Your task to perform on an android device: find photos in the google photos app Image 0: 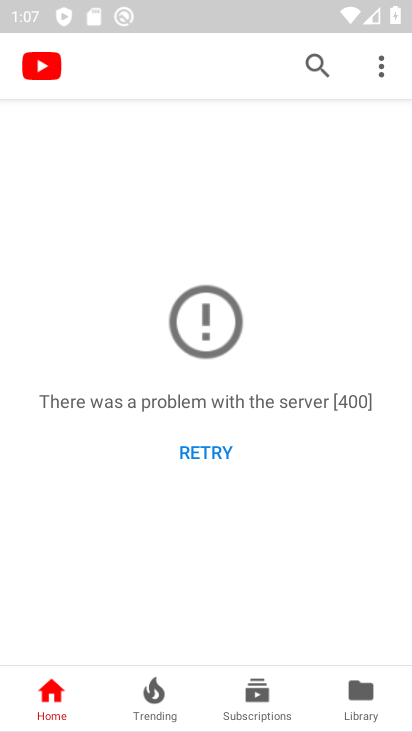
Step 0: press back button
Your task to perform on an android device: find photos in the google photos app Image 1: 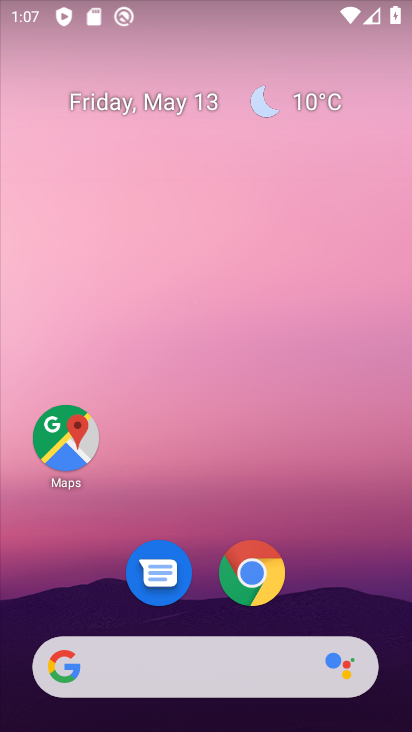
Step 1: drag from (331, 569) to (252, 13)
Your task to perform on an android device: find photos in the google photos app Image 2: 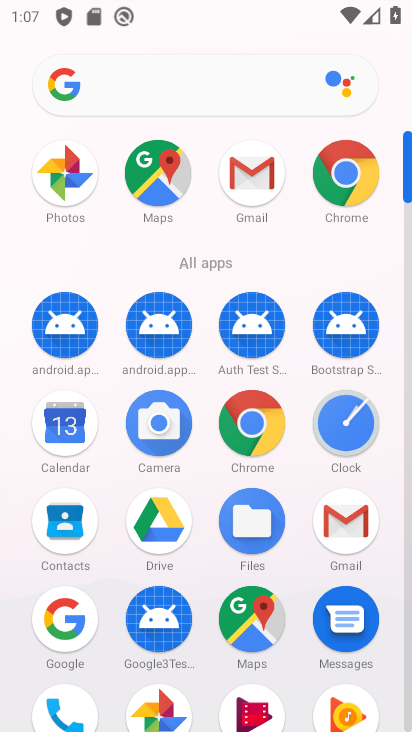
Step 2: drag from (8, 591) to (16, 328)
Your task to perform on an android device: find photos in the google photos app Image 3: 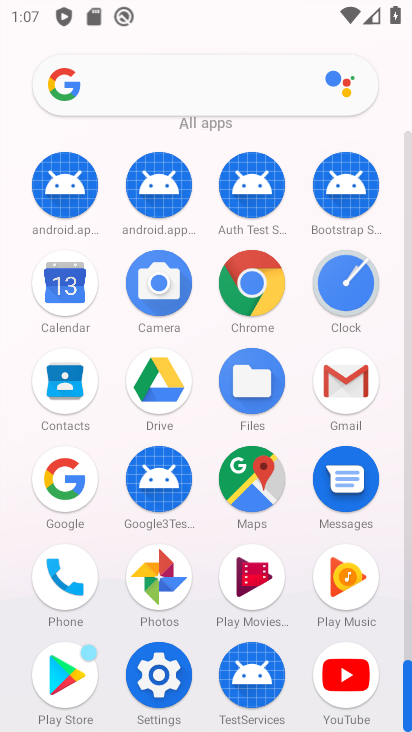
Step 3: click (161, 570)
Your task to perform on an android device: find photos in the google photos app Image 4: 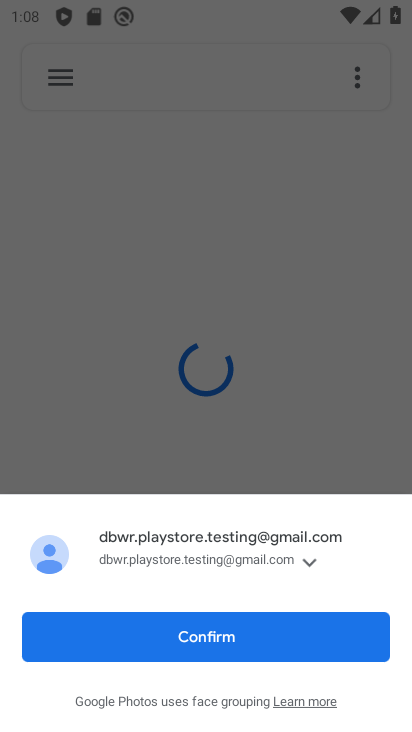
Step 4: click (197, 632)
Your task to perform on an android device: find photos in the google photos app Image 5: 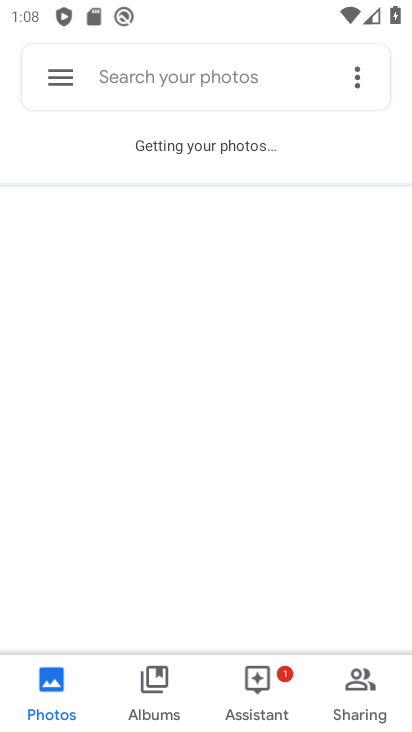
Step 5: task complete